Your task to perform on an android device: Search for vegetarian restaurants on Maps Image 0: 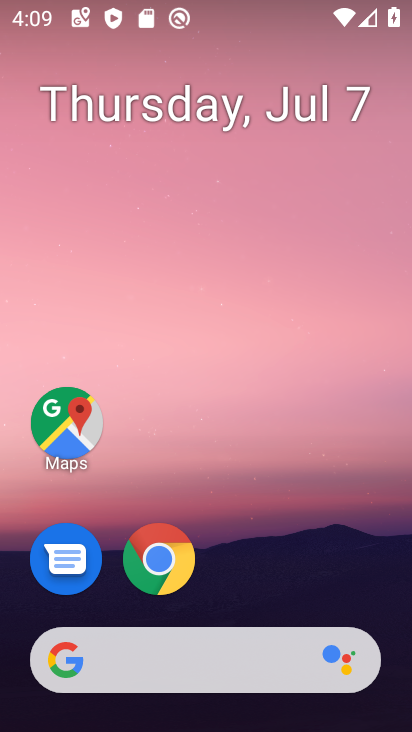
Step 0: click (56, 414)
Your task to perform on an android device: Search for vegetarian restaurants on Maps Image 1: 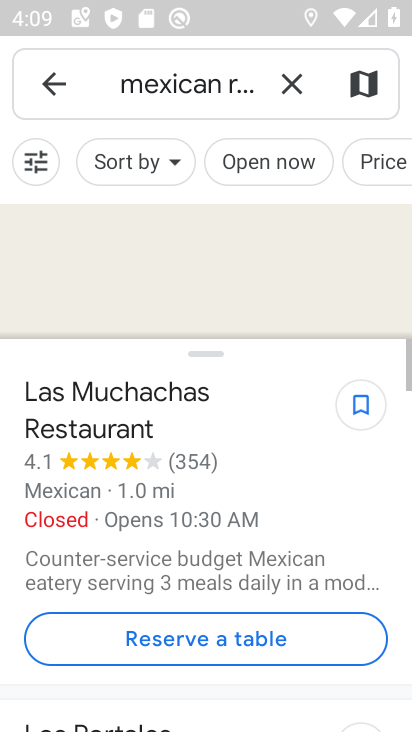
Step 1: click (297, 83)
Your task to perform on an android device: Search for vegetarian restaurants on Maps Image 2: 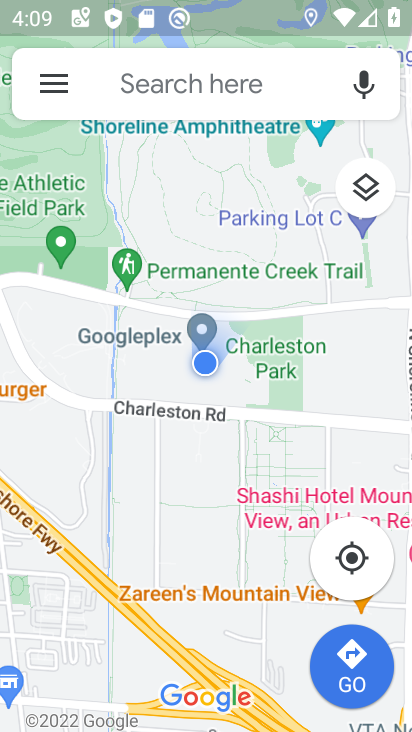
Step 2: click (185, 67)
Your task to perform on an android device: Search for vegetarian restaurants on Maps Image 3: 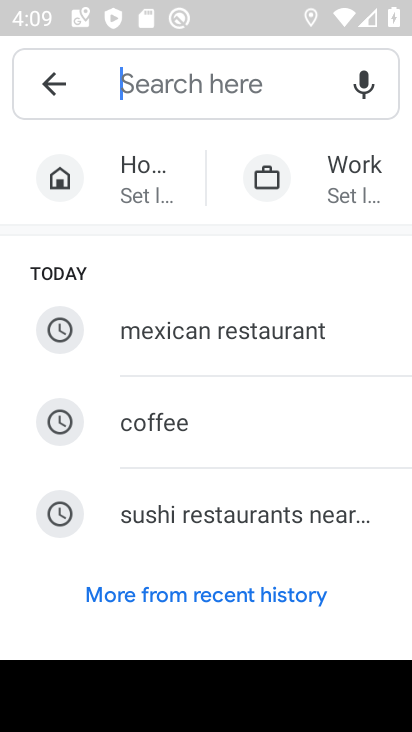
Step 3: click (138, 82)
Your task to perform on an android device: Search for vegetarian restaurants on Maps Image 4: 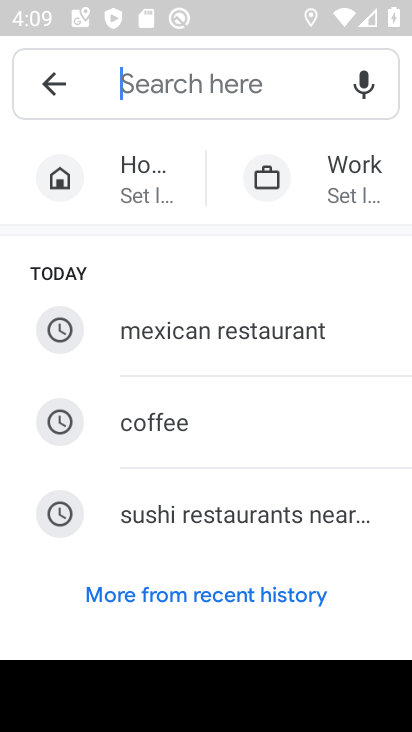
Step 4: type "vegetarian restaurants"
Your task to perform on an android device: Search for vegetarian restaurants on Maps Image 5: 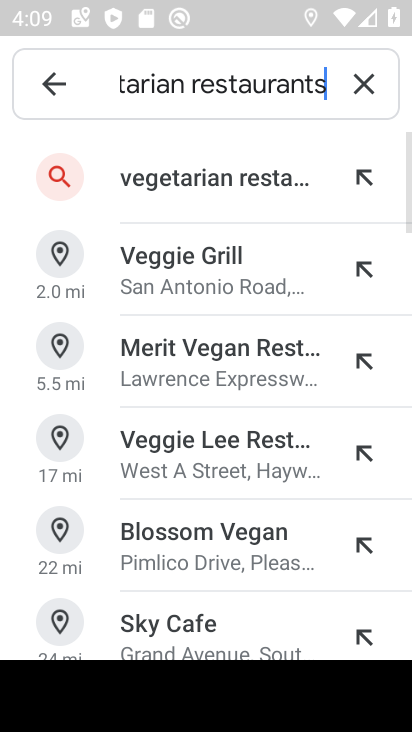
Step 5: click (212, 182)
Your task to perform on an android device: Search for vegetarian restaurants on Maps Image 6: 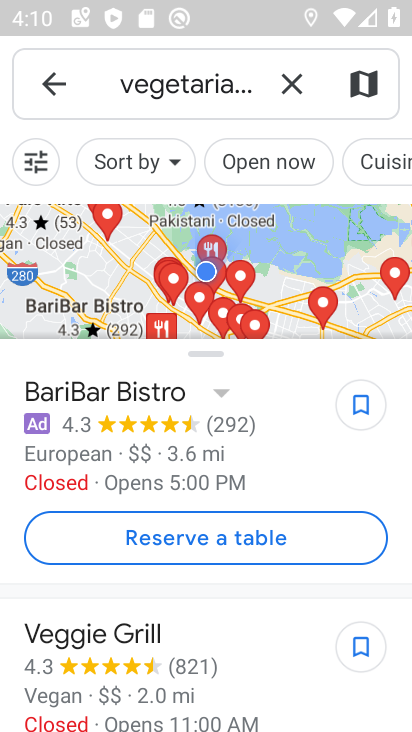
Step 6: task complete